Your task to perform on an android device: open app "NewsBreak: Local News & Alerts" Image 0: 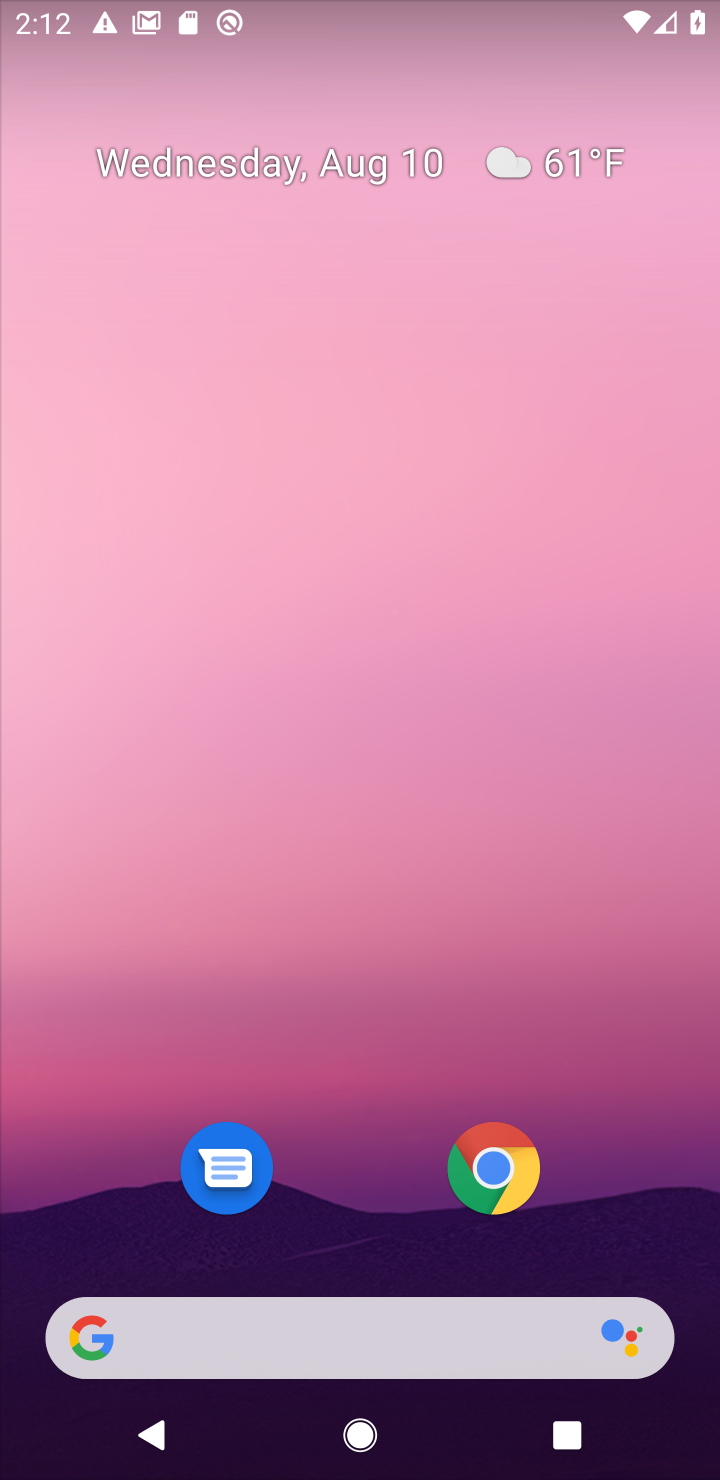
Step 0: drag from (316, 1338) to (349, 215)
Your task to perform on an android device: open app "NewsBreak: Local News & Alerts" Image 1: 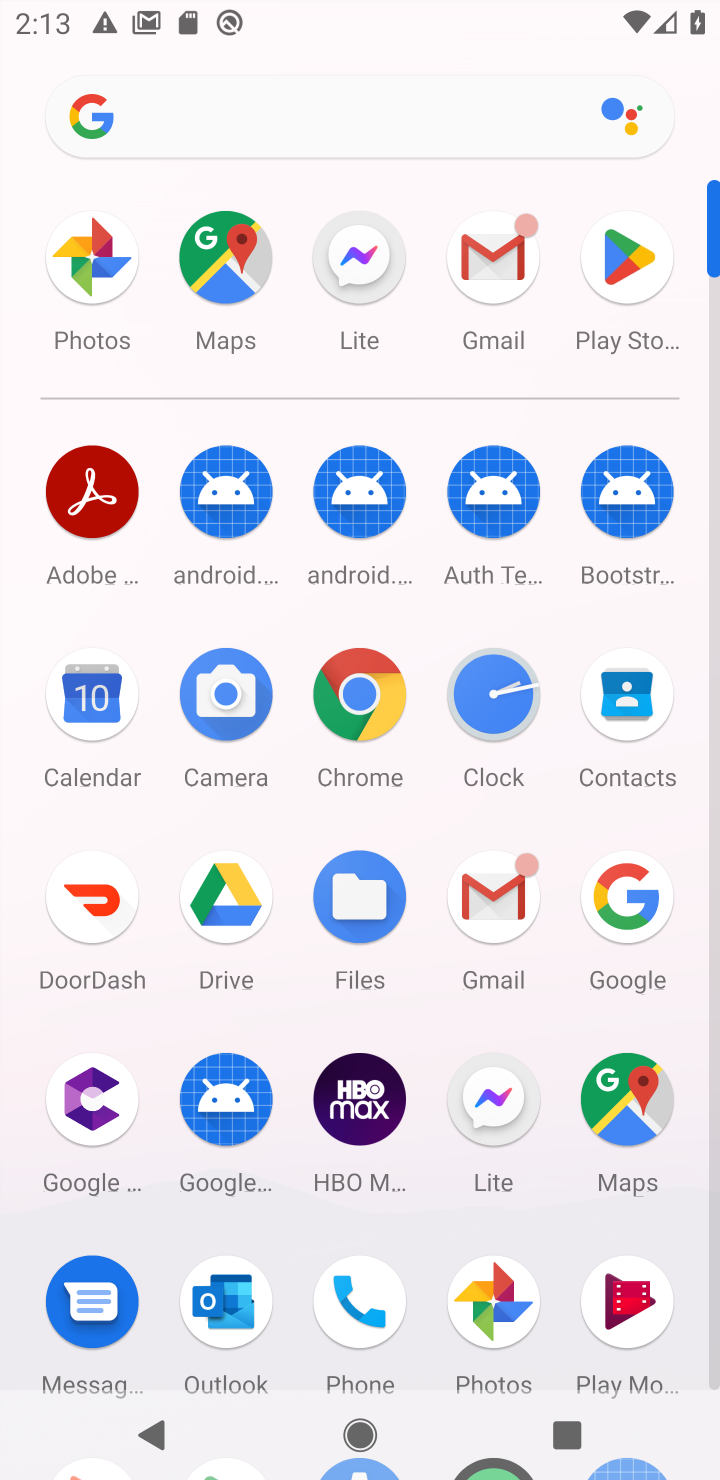
Step 1: click (639, 252)
Your task to perform on an android device: open app "NewsBreak: Local News & Alerts" Image 2: 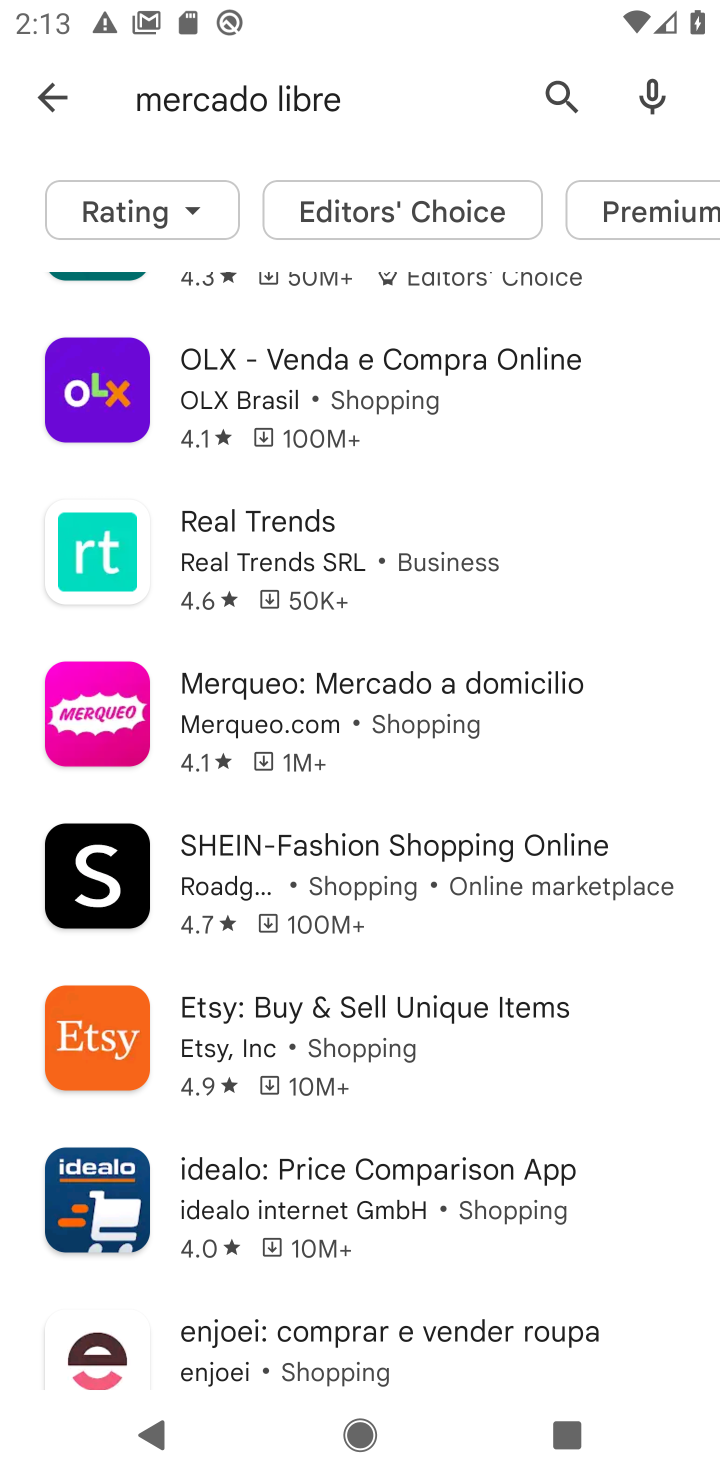
Step 2: press back button
Your task to perform on an android device: open app "NewsBreak: Local News & Alerts" Image 3: 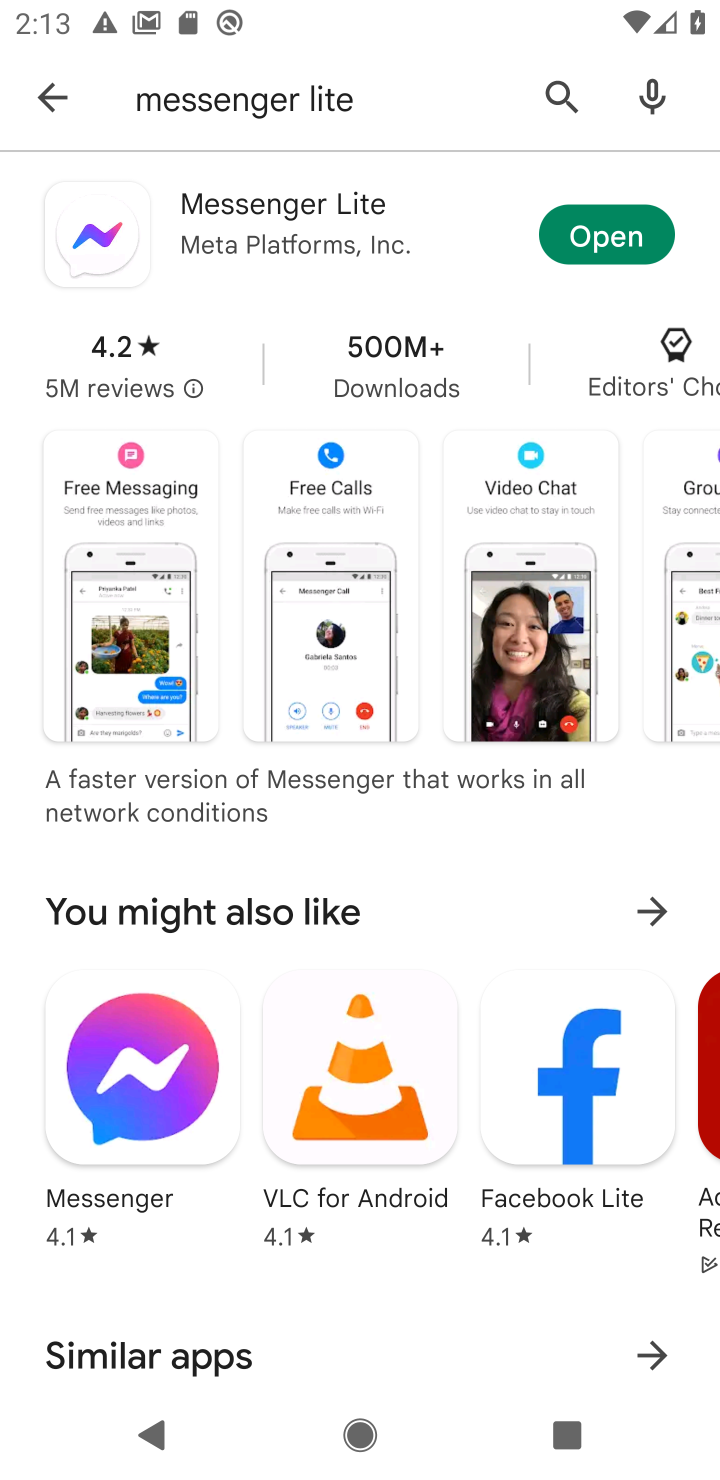
Step 3: press back button
Your task to perform on an android device: open app "NewsBreak: Local News & Alerts" Image 4: 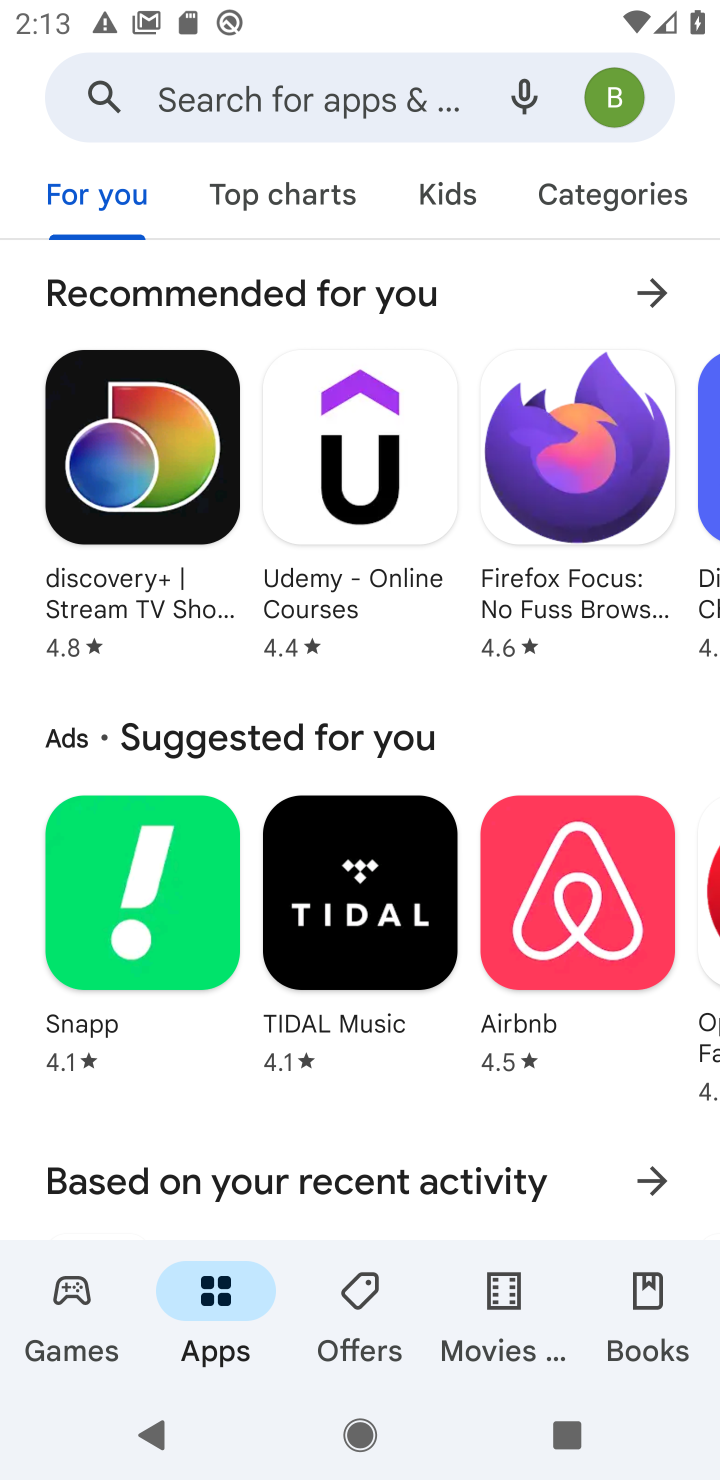
Step 4: click (379, 79)
Your task to perform on an android device: open app "NewsBreak: Local News & Alerts" Image 5: 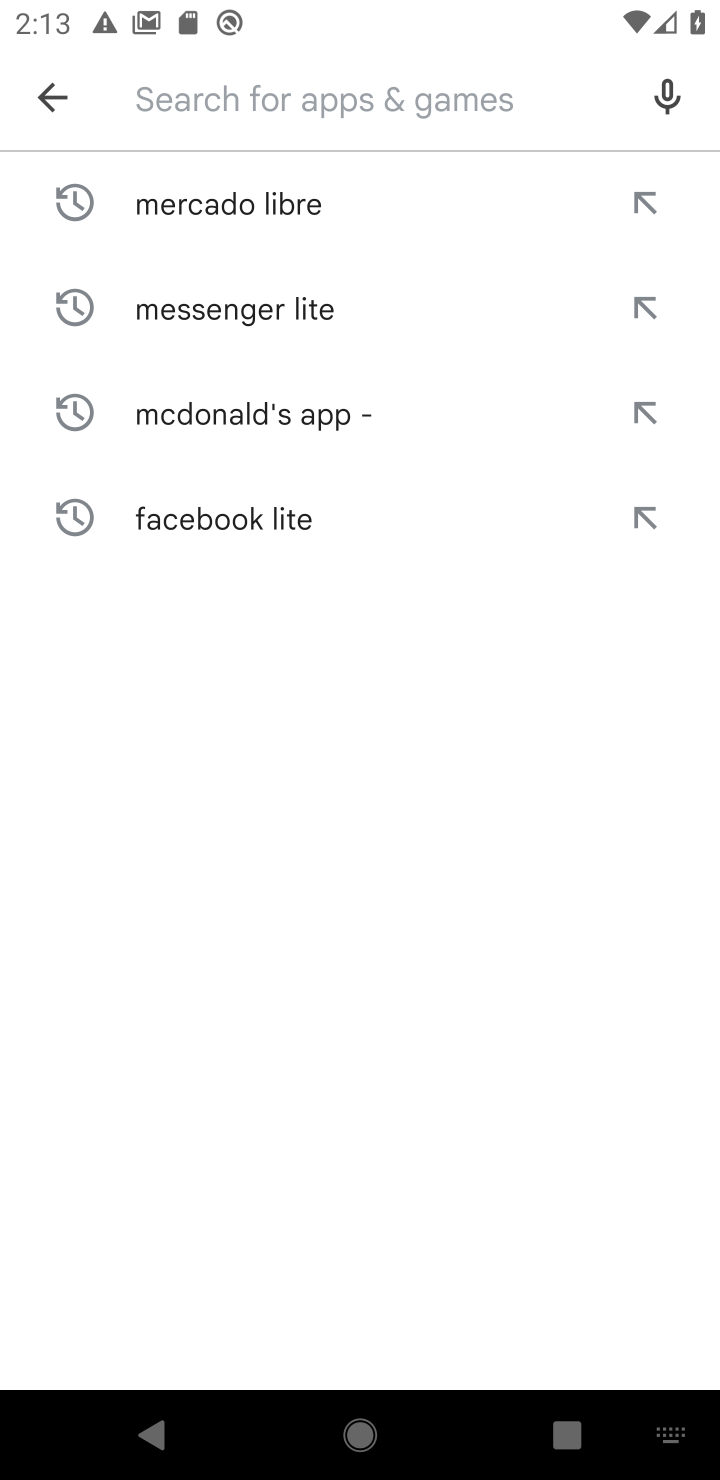
Step 5: click (264, 86)
Your task to perform on an android device: open app "NewsBreak: Local News & Alerts" Image 6: 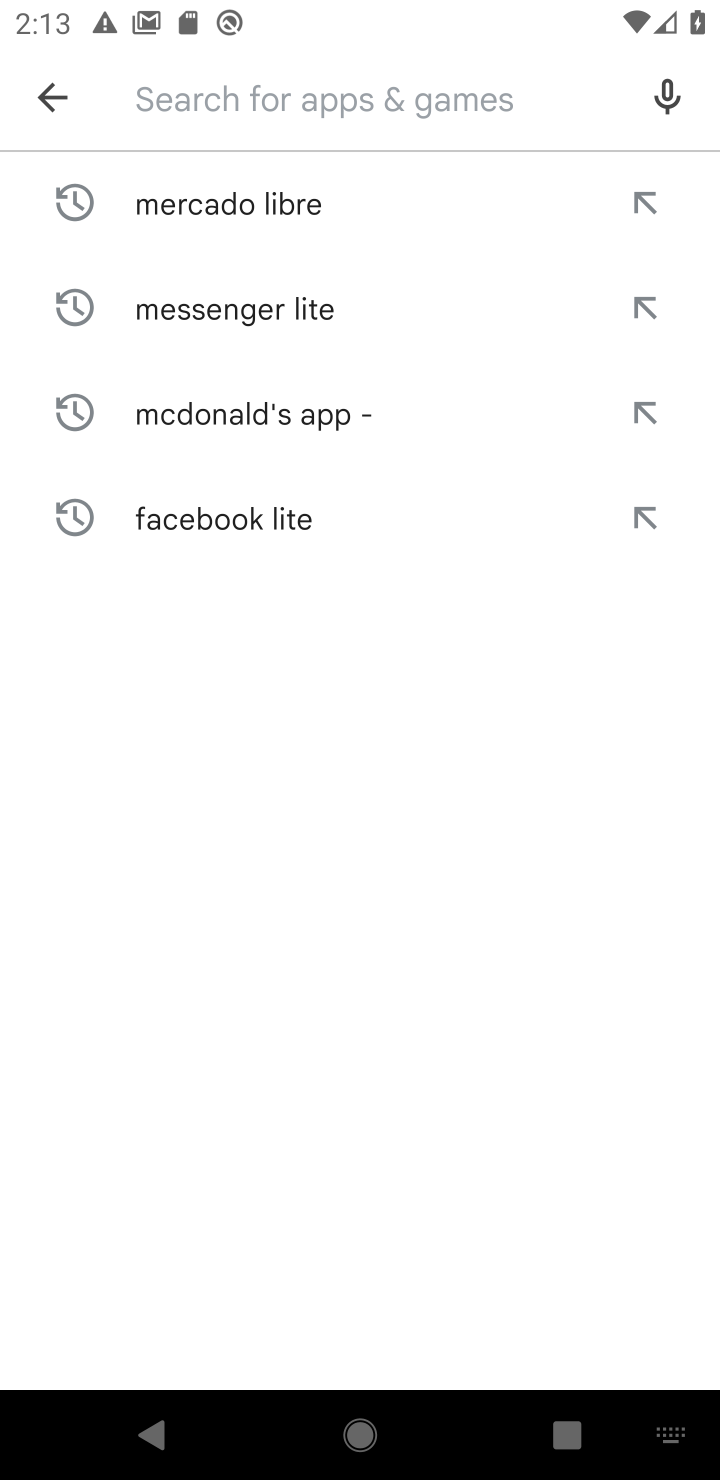
Step 6: type "NewsBreak: Local News & Alerts"
Your task to perform on an android device: open app "NewsBreak: Local News & Alerts" Image 7: 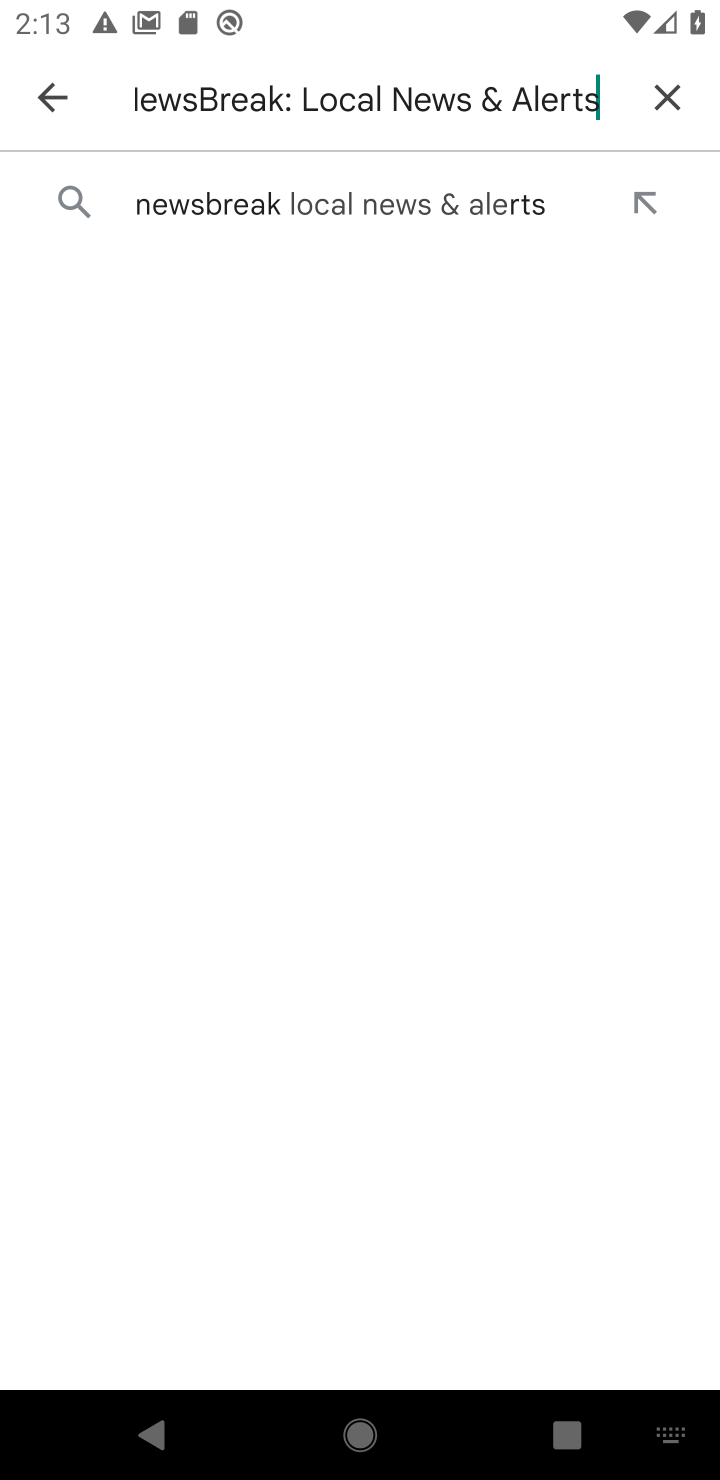
Step 7: type ""
Your task to perform on an android device: open app "NewsBreak: Local News & Alerts" Image 8: 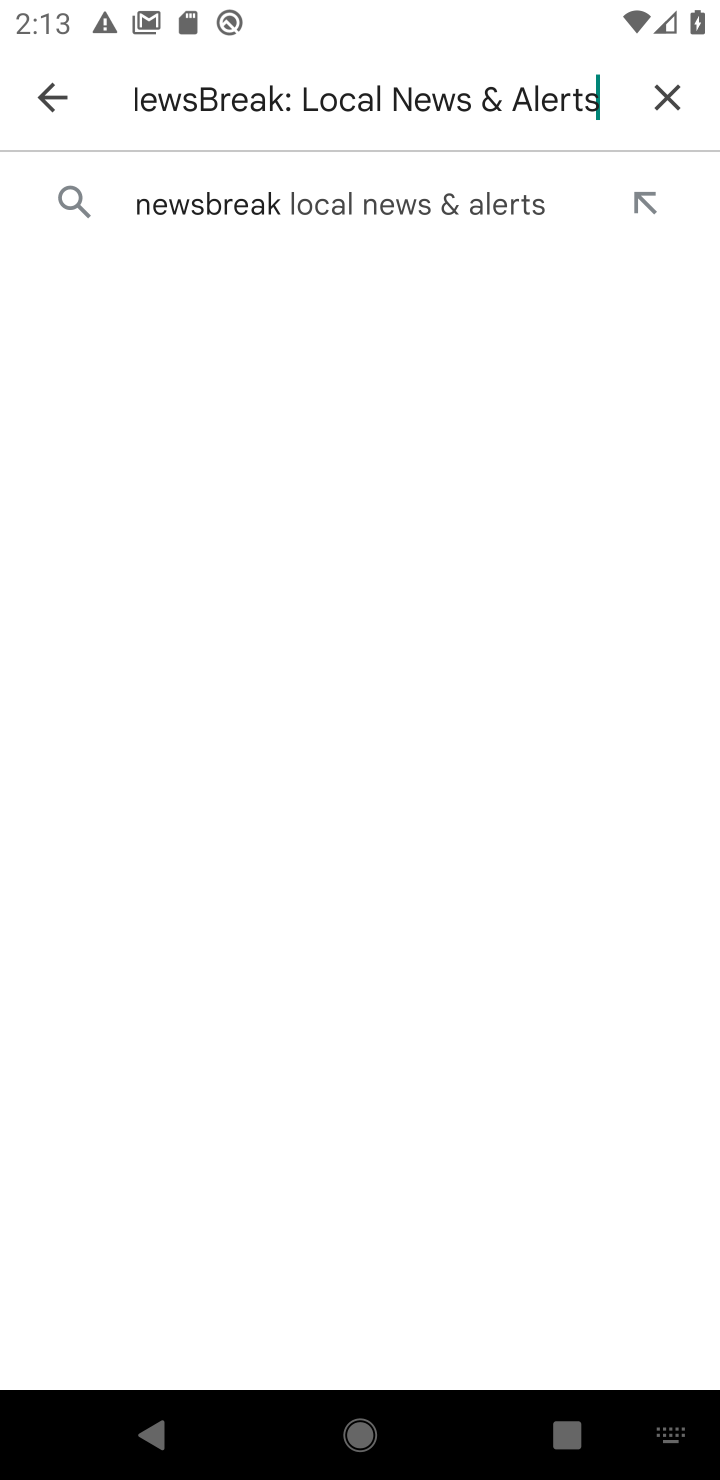
Step 8: click (325, 216)
Your task to perform on an android device: open app "NewsBreak: Local News & Alerts" Image 9: 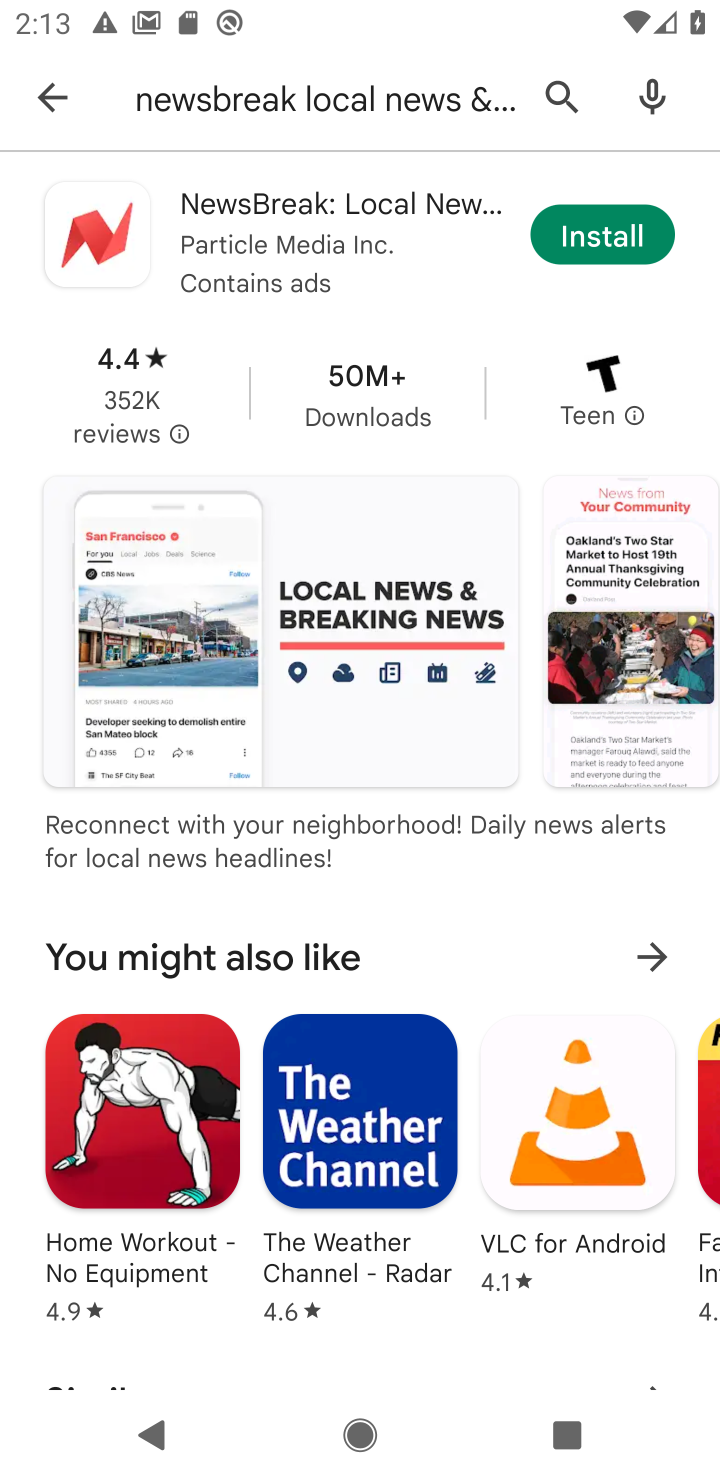
Step 9: task complete